Your task to perform on an android device: choose inbox layout in the gmail app Image 0: 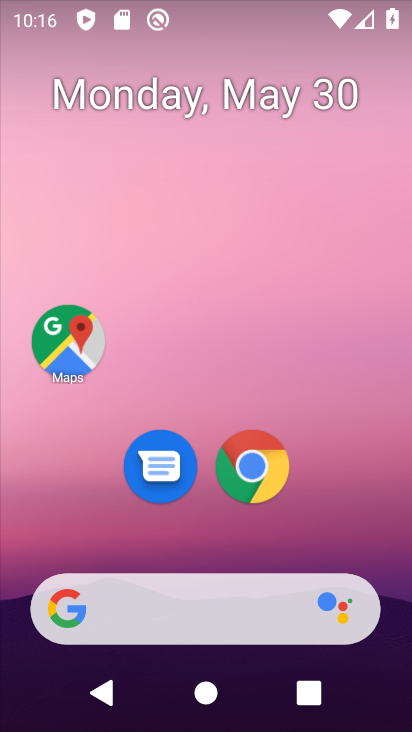
Step 0: drag from (163, 568) to (172, 52)
Your task to perform on an android device: choose inbox layout in the gmail app Image 1: 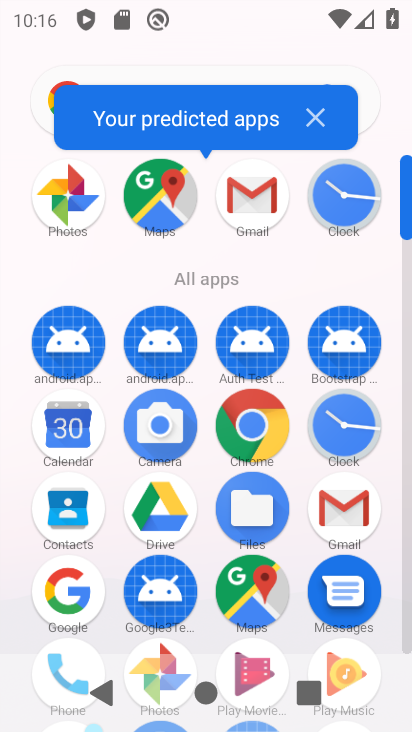
Step 1: click (344, 519)
Your task to perform on an android device: choose inbox layout in the gmail app Image 2: 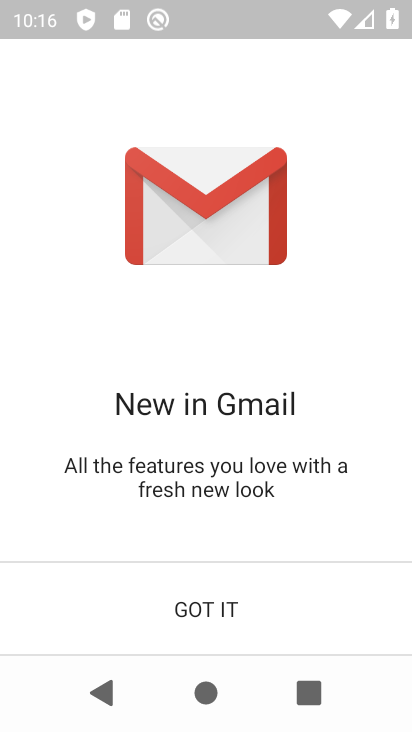
Step 2: click (168, 612)
Your task to perform on an android device: choose inbox layout in the gmail app Image 3: 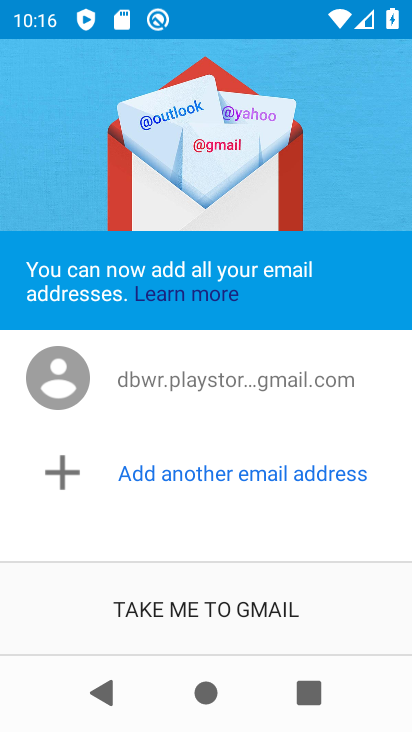
Step 3: click (242, 616)
Your task to perform on an android device: choose inbox layout in the gmail app Image 4: 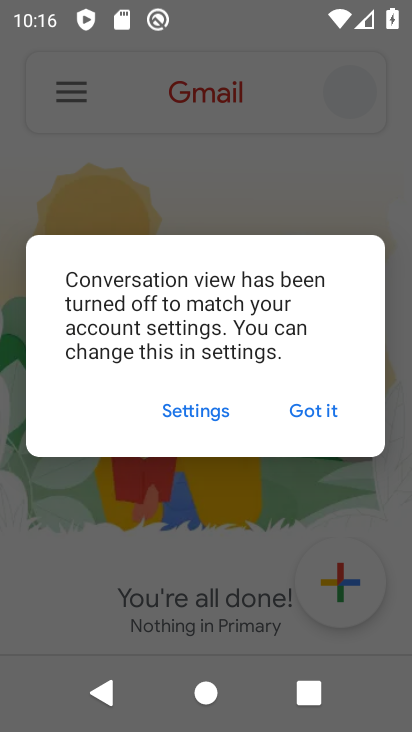
Step 4: click (342, 405)
Your task to perform on an android device: choose inbox layout in the gmail app Image 5: 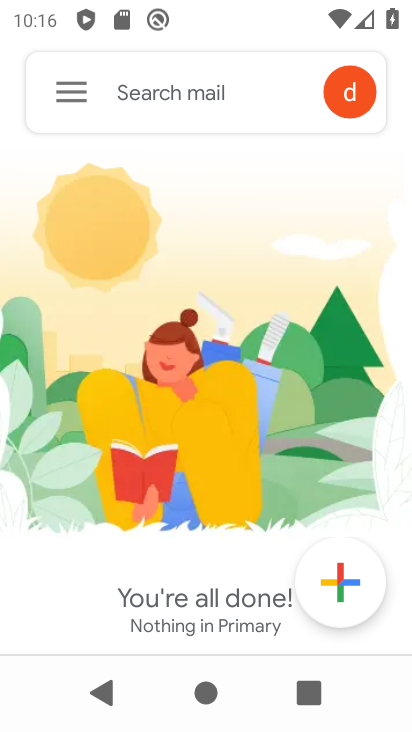
Step 5: click (61, 99)
Your task to perform on an android device: choose inbox layout in the gmail app Image 6: 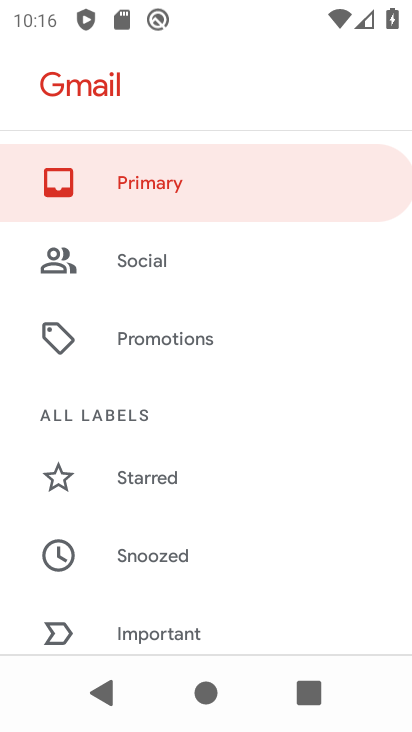
Step 6: drag from (249, 467) to (205, 176)
Your task to perform on an android device: choose inbox layout in the gmail app Image 7: 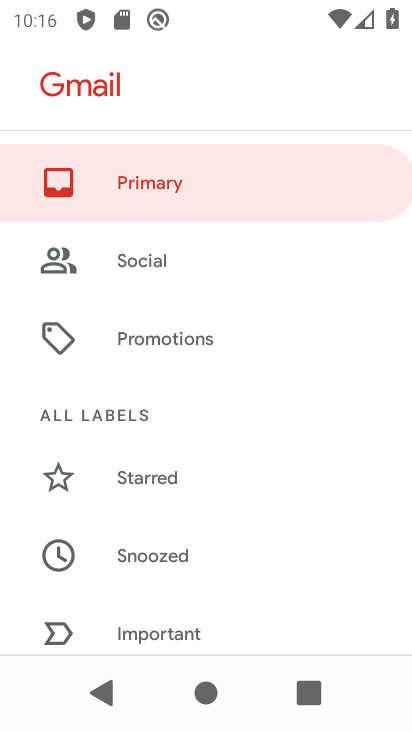
Step 7: drag from (256, 622) to (230, 269)
Your task to perform on an android device: choose inbox layout in the gmail app Image 8: 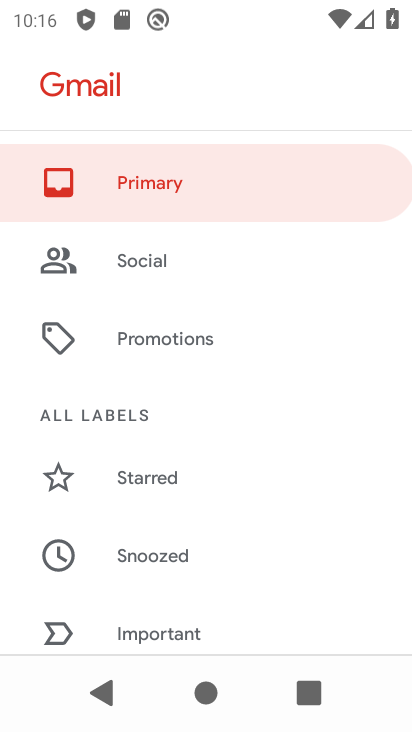
Step 8: drag from (260, 613) to (274, 253)
Your task to perform on an android device: choose inbox layout in the gmail app Image 9: 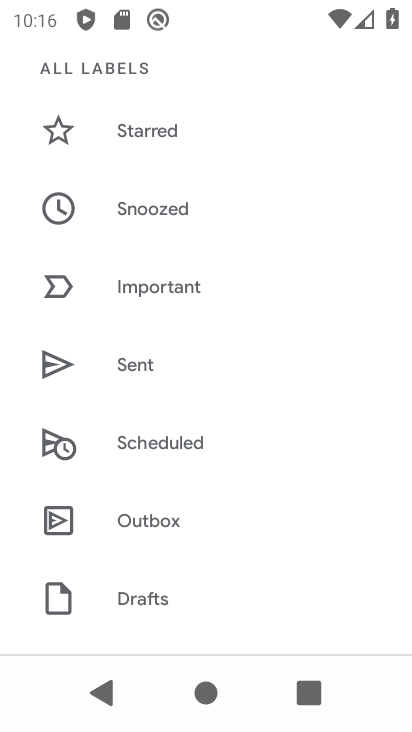
Step 9: drag from (306, 618) to (303, 213)
Your task to perform on an android device: choose inbox layout in the gmail app Image 10: 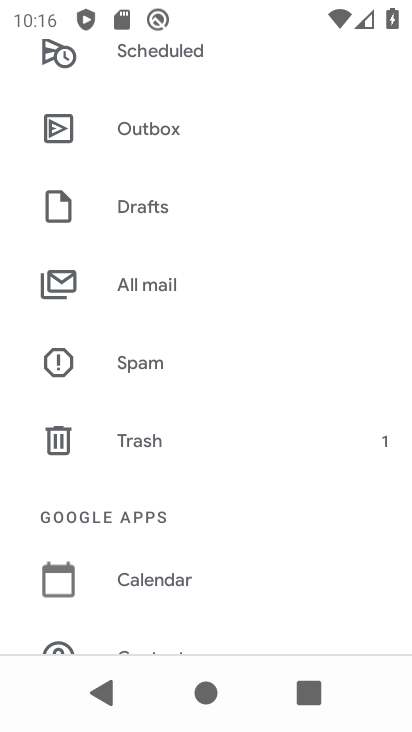
Step 10: drag from (320, 602) to (270, 197)
Your task to perform on an android device: choose inbox layout in the gmail app Image 11: 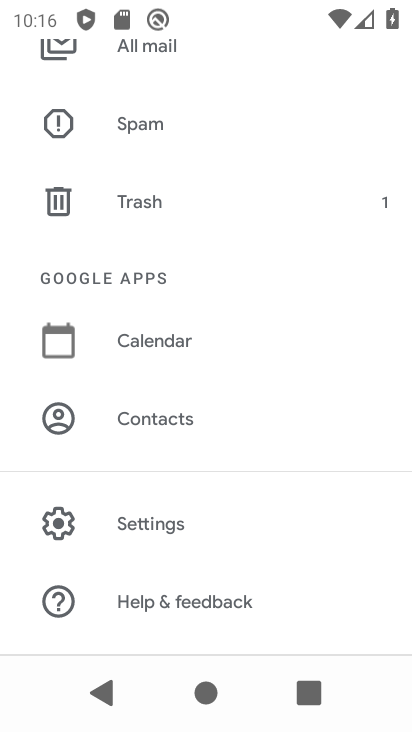
Step 11: click (180, 527)
Your task to perform on an android device: choose inbox layout in the gmail app Image 12: 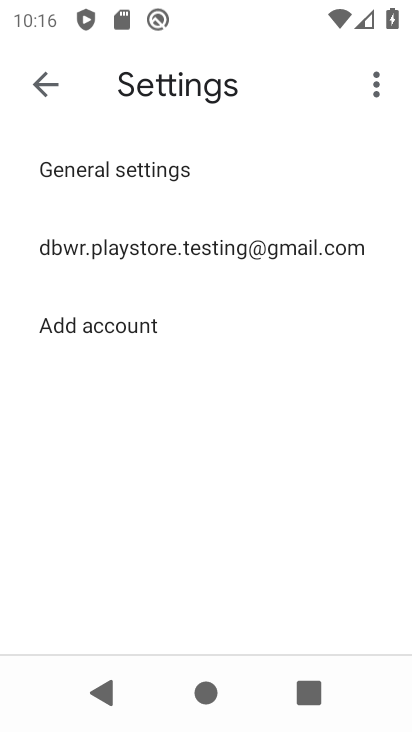
Step 12: click (176, 247)
Your task to perform on an android device: choose inbox layout in the gmail app Image 13: 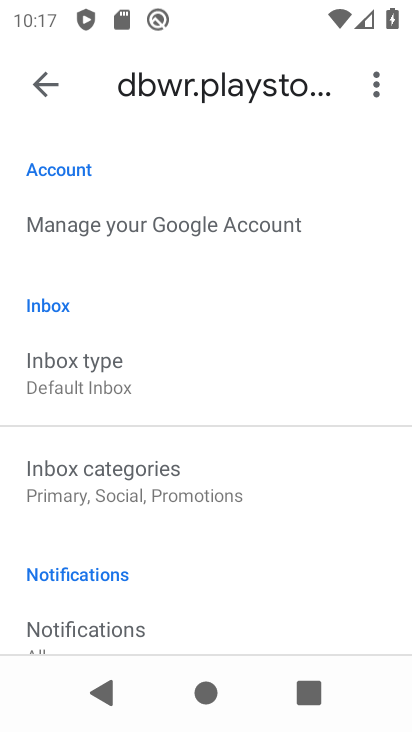
Step 13: click (98, 399)
Your task to perform on an android device: choose inbox layout in the gmail app Image 14: 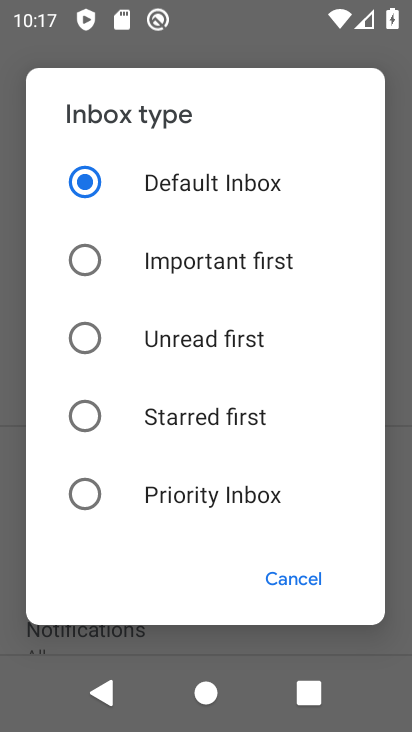
Step 14: task complete